Your task to perform on an android device: check out phone information Image 0: 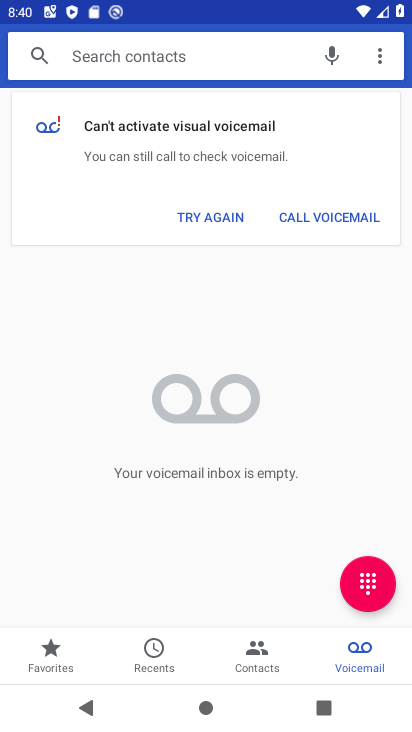
Step 0: press home button
Your task to perform on an android device: check out phone information Image 1: 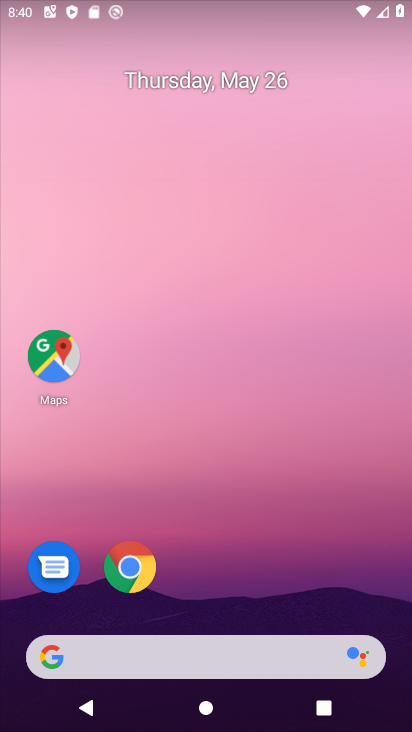
Step 1: drag from (183, 615) to (312, 33)
Your task to perform on an android device: check out phone information Image 2: 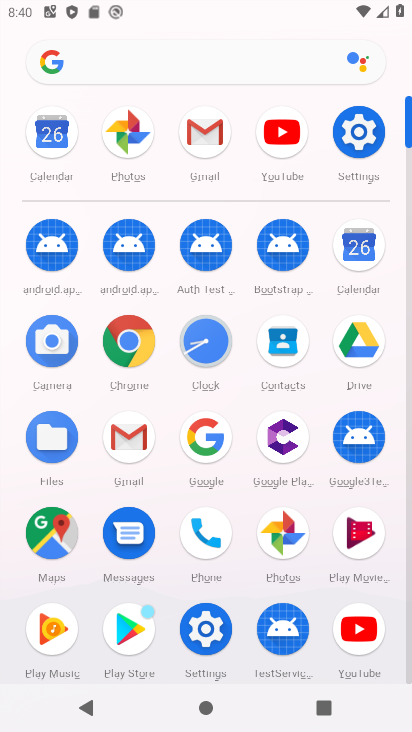
Step 2: click (363, 143)
Your task to perform on an android device: check out phone information Image 3: 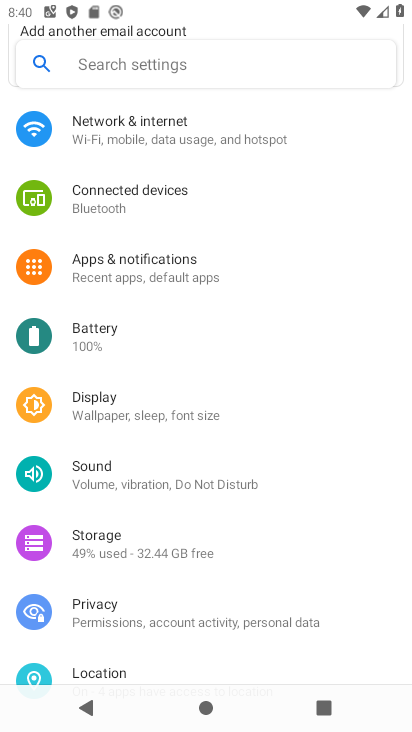
Step 3: drag from (253, 652) to (330, 28)
Your task to perform on an android device: check out phone information Image 4: 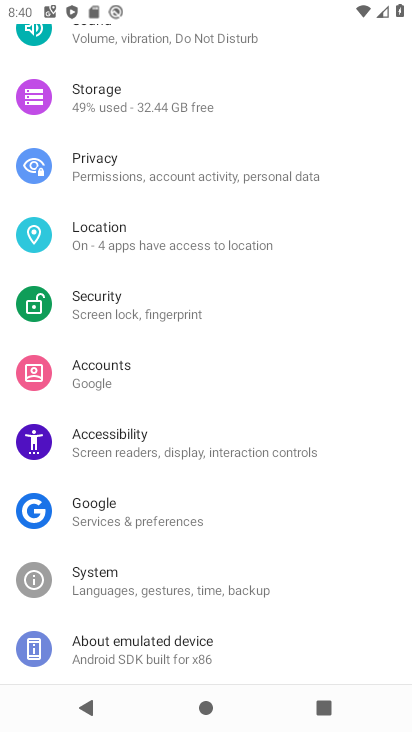
Step 4: click (171, 653)
Your task to perform on an android device: check out phone information Image 5: 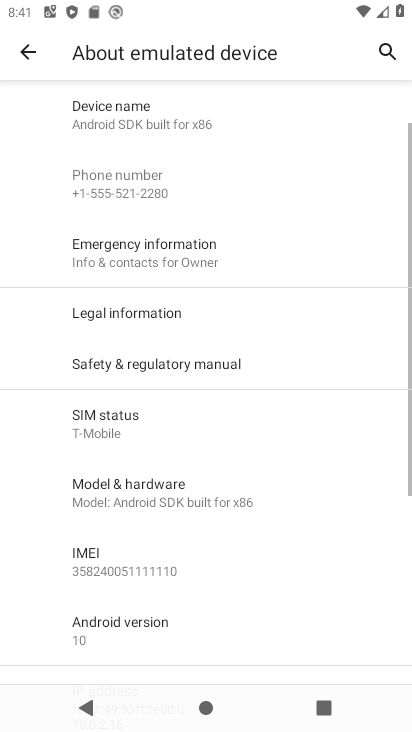
Step 5: task complete